Your task to perform on an android device: Open internet settings Image 0: 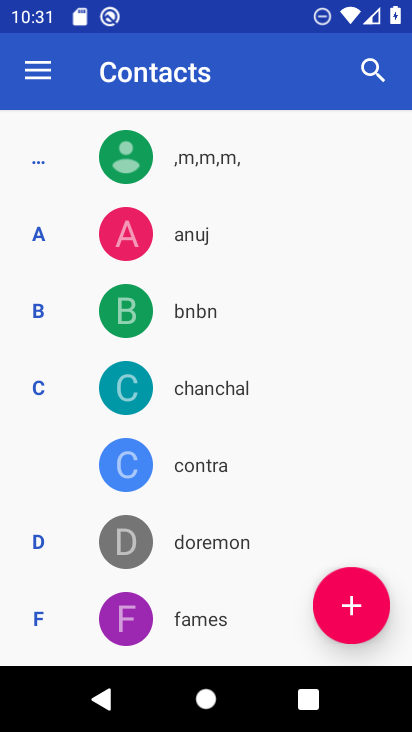
Step 0: press home button
Your task to perform on an android device: Open internet settings Image 1: 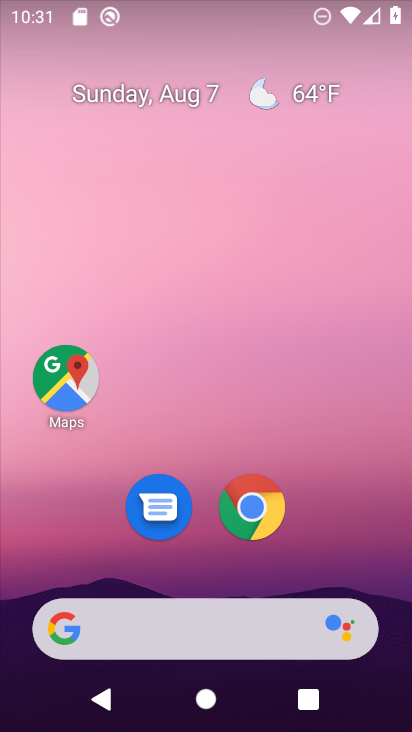
Step 1: drag from (354, 519) to (301, 102)
Your task to perform on an android device: Open internet settings Image 2: 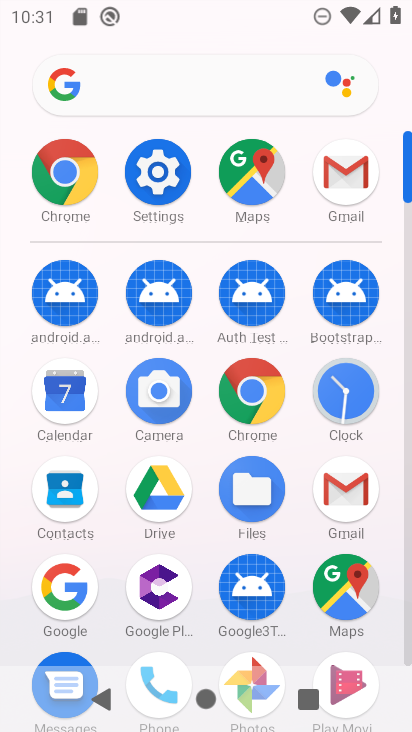
Step 2: drag from (208, 614) to (220, 271)
Your task to perform on an android device: Open internet settings Image 3: 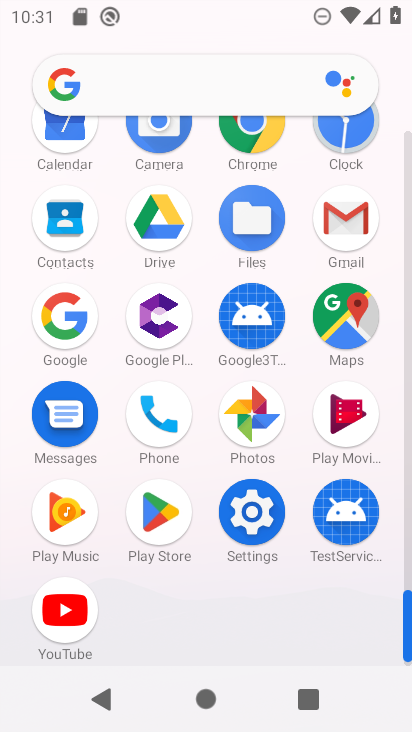
Step 3: click (265, 525)
Your task to perform on an android device: Open internet settings Image 4: 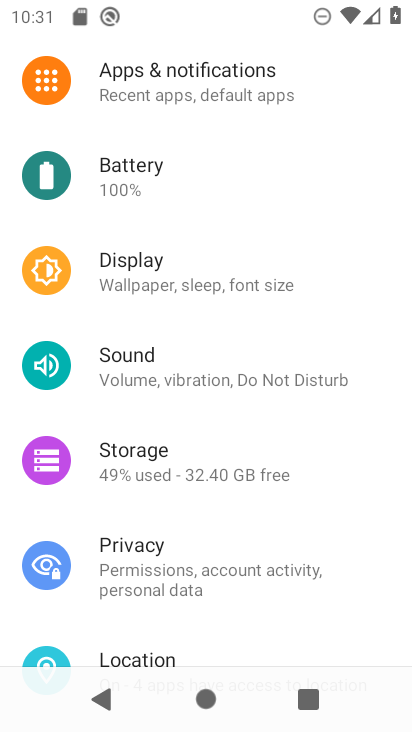
Step 4: drag from (211, 218) to (232, 594)
Your task to perform on an android device: Open internet settings Image 5: 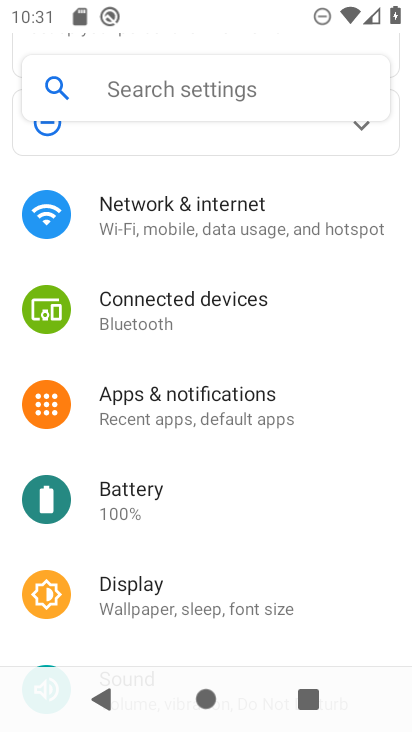
Step 5: click (199, 211)
Your task to perform on an android device: Open internet settings Image 6: 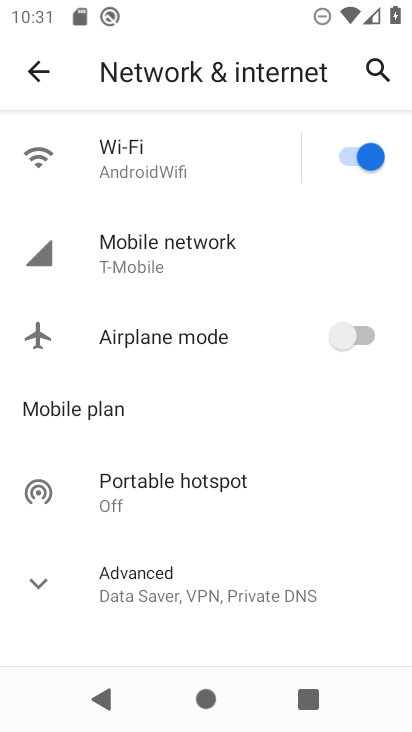
Step 6: click (130, 565)
Your task to perform on an android device: Open internet settings Image 7: 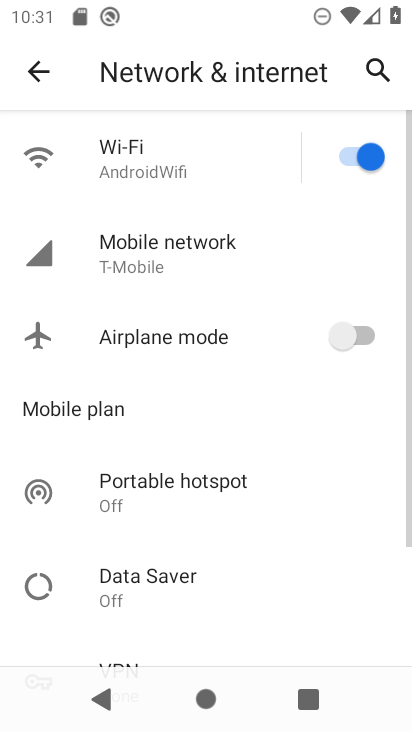
Step 7: task complete